Your task to perform on an android device: delete location history Image 0: 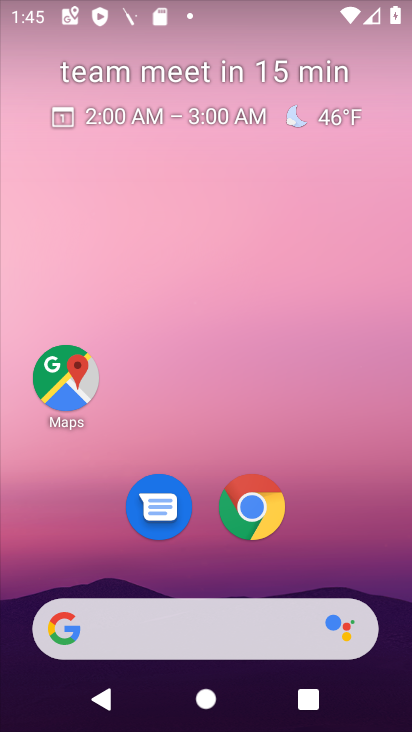
Step 0: drag from (261, 672) to (302, 286)
Your task to perform on an android device: delete location history Image 1: 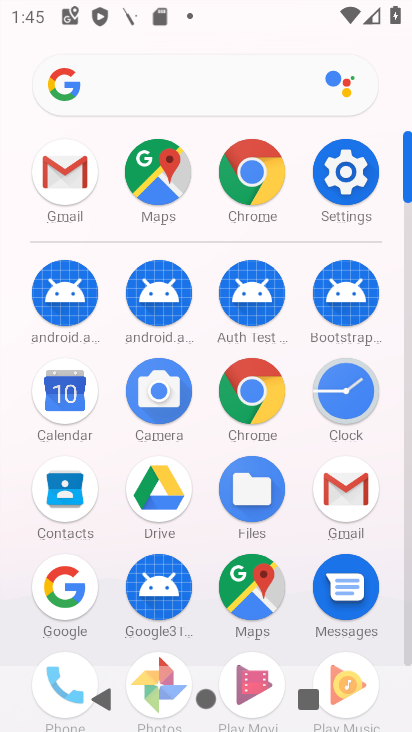
Step 1: click (325, 189)
Your task to perform on an android device: delete location history Image 2: 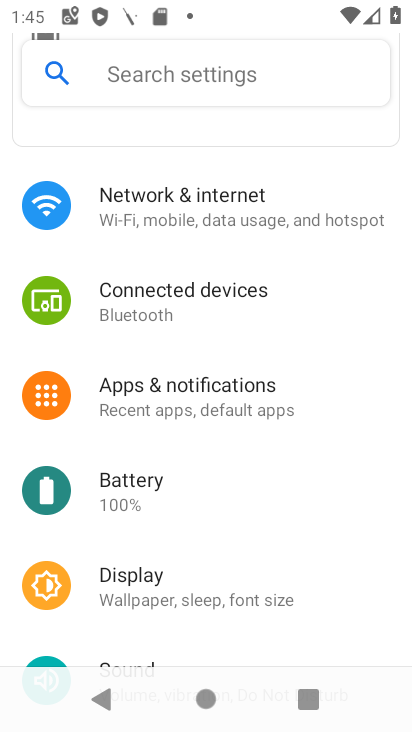
Step 2: click (190, 83)
Your task to perform on an android device: delete location history Image 3: 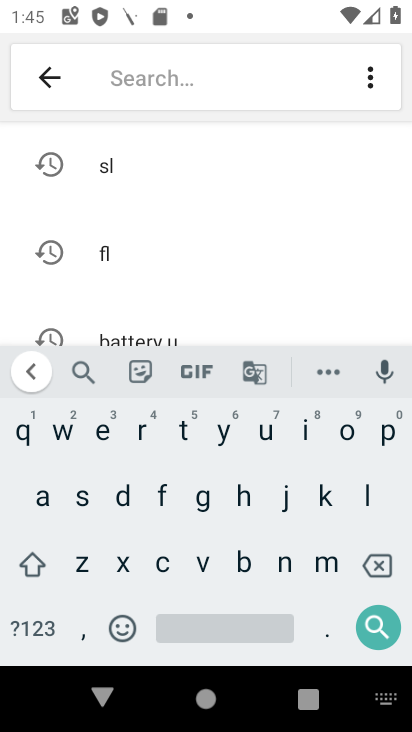
Step 3: click (368, 502)
Your task to perform on an android device: delete location history Image 4: 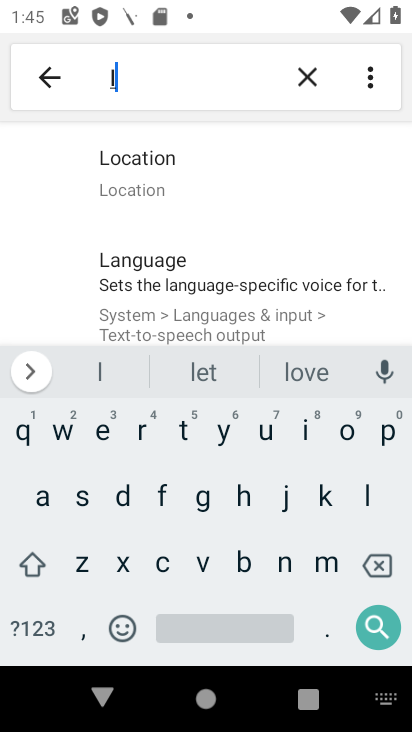
Step 4: click (175, 190)
Your task to perform on an android device: delete location history Image 5: 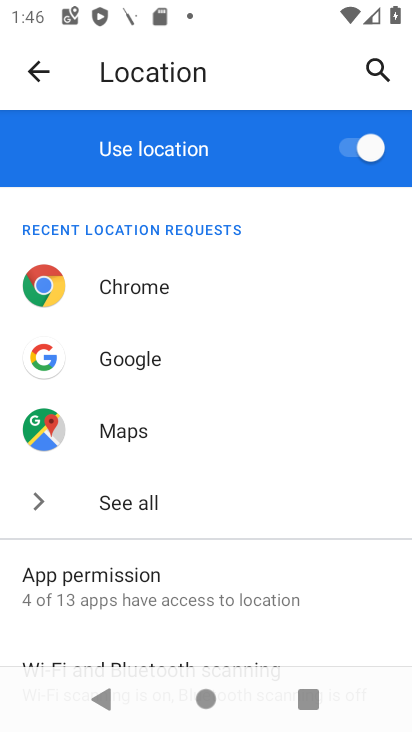
Step 5: task complete